Your task to perform on an android device: Go to Google maps Image 0: 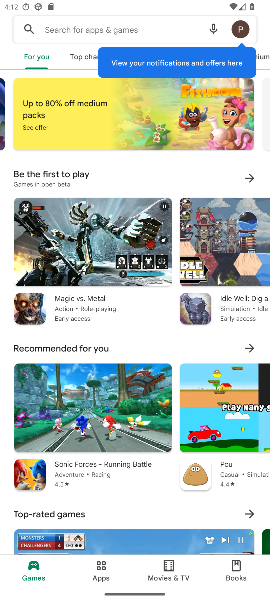
Step 0: press home button
Your task to perform on an android device: Go to Google maps Image 1: 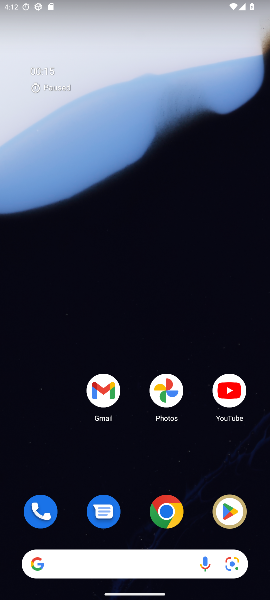
Step 1: drag from (103, 464) to (107, 186)
Your task to perform on an android device: Go to Google maps Image 2: 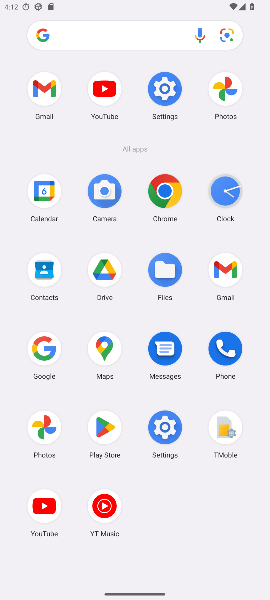
Step 2: click (104, 356)
Your task to perform on an android device: Go to Google maps Image 3: 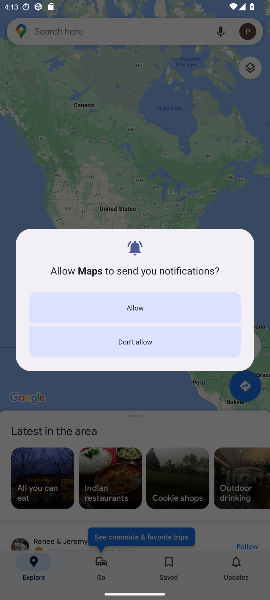
Step 3: click (143, 306)
Your task to perform on an android device: Go to Google maps Image 4: 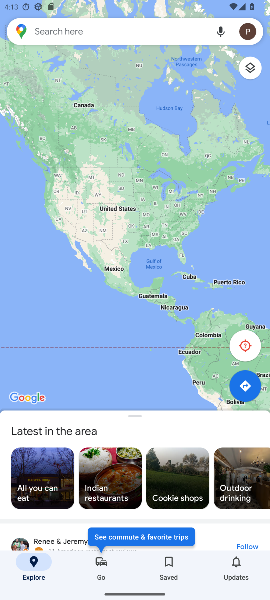
Step 4: task complete